Your task to perform on an android device: turn on the 24-hour format for clock Image 0: 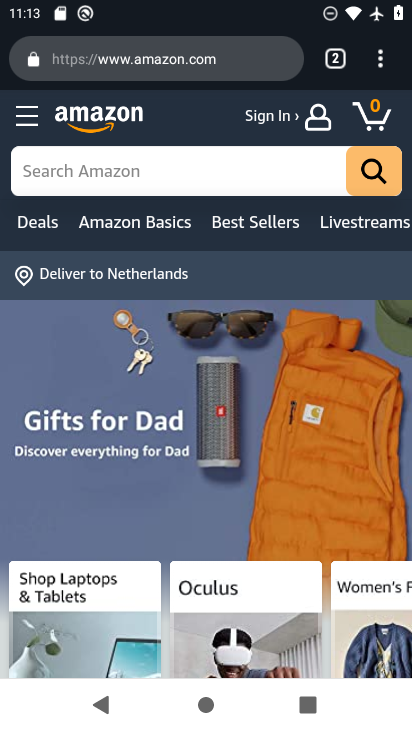
Step 0: drag from (163, 588) to (300, 75)
Your task to perform on an android device: turn on the 24-hour format for clock Image 1: 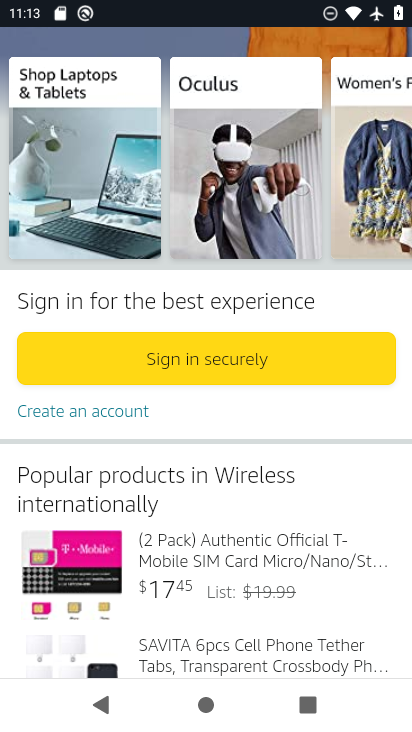
Step 1: press home button
Your task to perform on an android device: turn on the 24-hour format for clock Image 2: 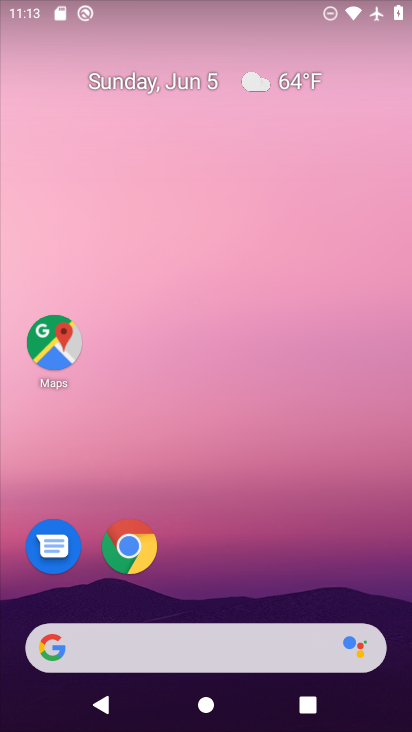
Step 2: drag from (161, 569) to (203, 340)
Your task to perform on an android device: turn on the 24-hour format for clock Image 3: 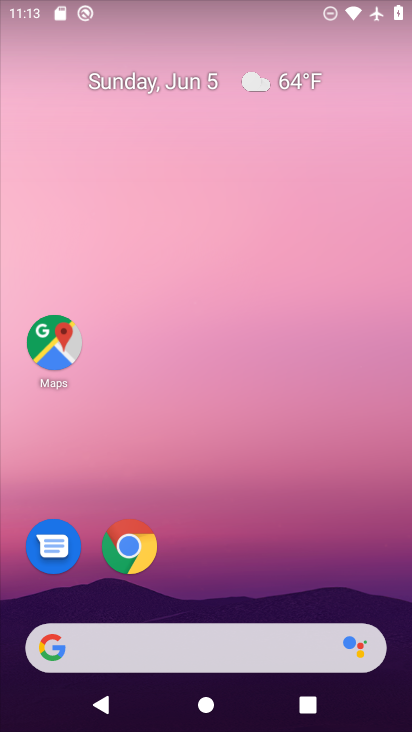
Step 3: drag from (172, 577) to (273, 25)
Your task to perform on an android device: turn on the 24-hour format for clock Image 4: 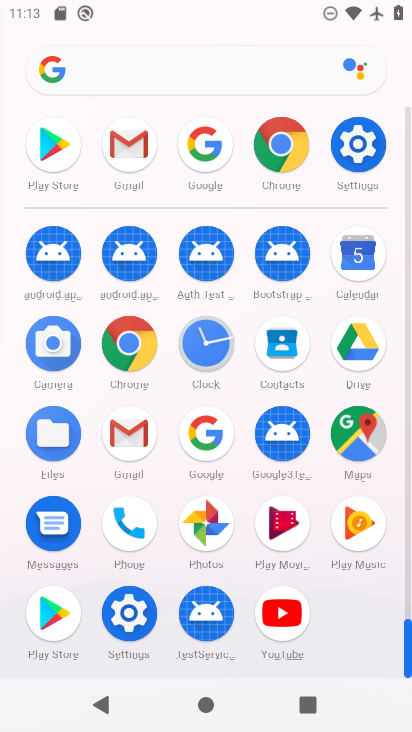
Step 4: click (193, 351)
Your task to perform on an android device: turn on the 24-hour format for clock Image 5: 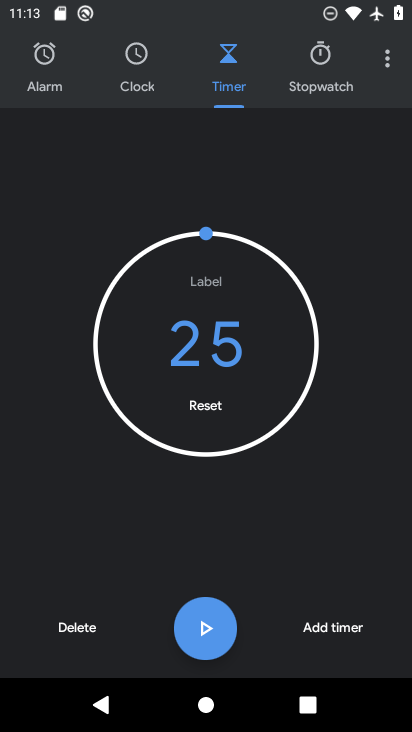
Step 5: click (373, 63)
Your task to perform on an android device: turn on the 24-hour format for clock Image 6: 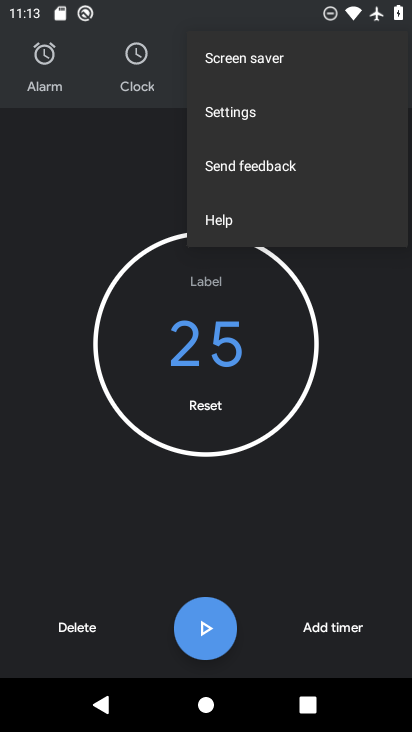
Step 6: click (274, 100)
Your task to perform on an android device: turn on the 24-hour format for clock Image 7: 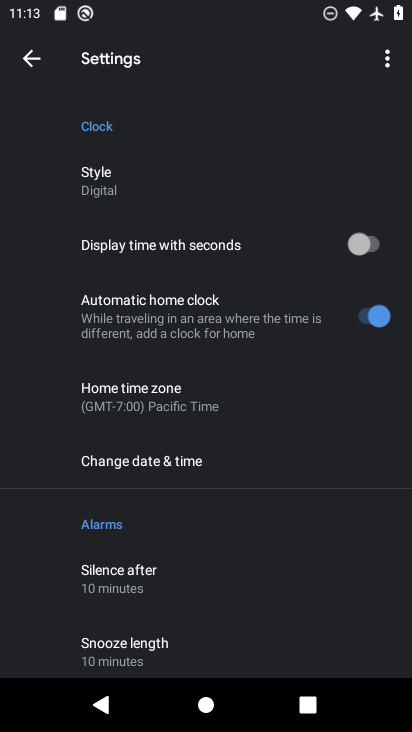
Step 7: drag from (255, 526) to (286, 203)
Your task to perform on an android device: turn on the 24-hour format for clock Image 8: 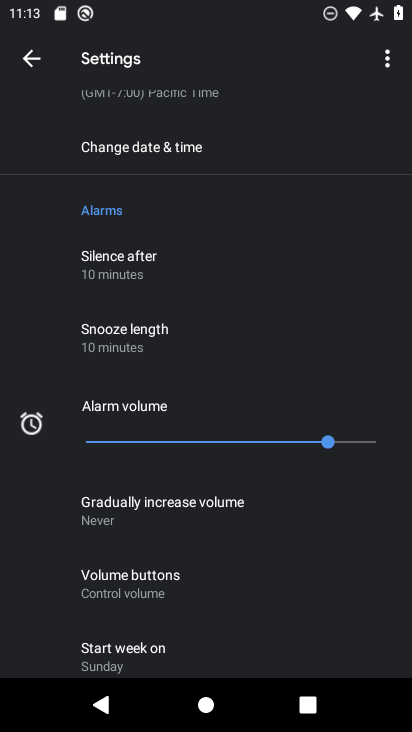
Step 8: click (172, 145)
Your task to perform on an android device: turn on the 24-hour format for clock Image 9: 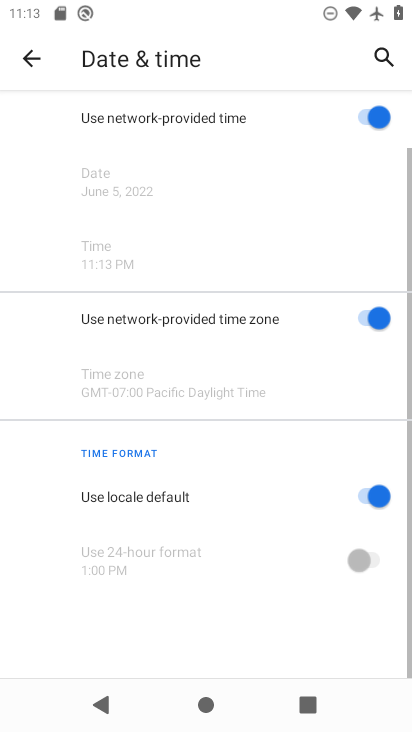
Step 9: drag from (247, 488) to (396, 22)
Your task to perform on an android device: turn on the 24-hour format for clock Image 10: 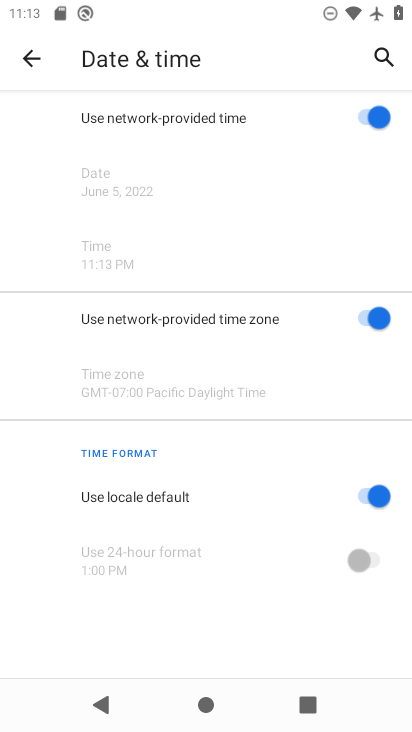
Step 10: click (375, 493)
Your task to perform on an android device: turn on the 24-hour format for clock Image 11: 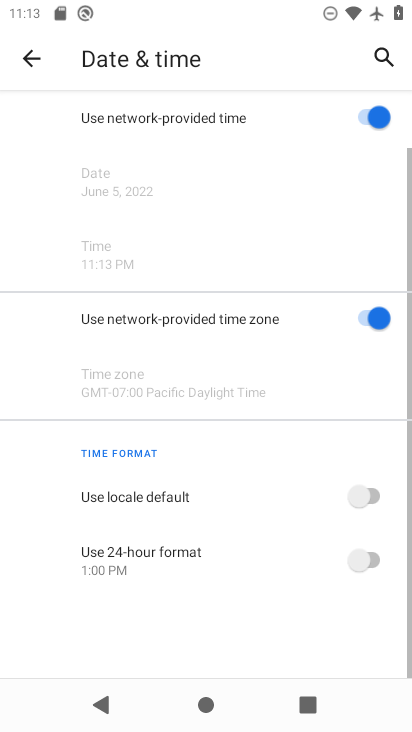
Step 11: click (371, 558)
Your task to perform on an android device: turn on the 24-hour format for clock Image 12: 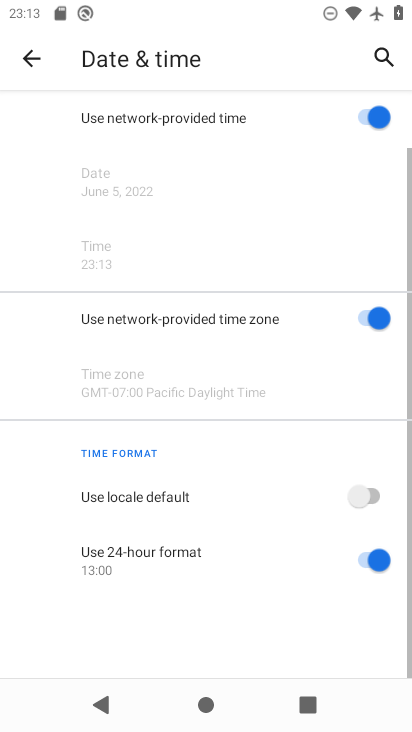
Step 12: task complete